Your task to perform on an android device: set default search engine in the chrome app Image 0: 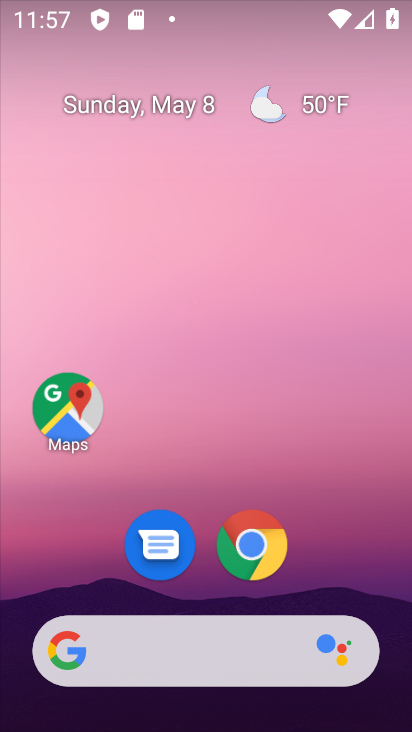
Step 0: click (239, 526)
Your task to perform on an android device: set default search engine in the chrome app Image 1: 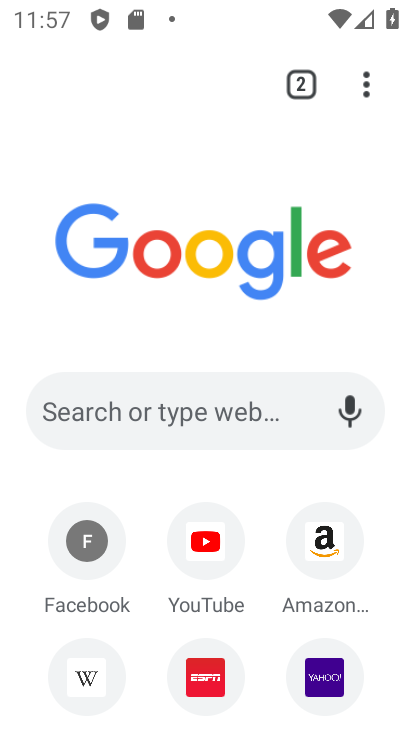
Step 1: click (368, 85)
Your task to perform on an android device: set default search engine in the chrome app Image 2: 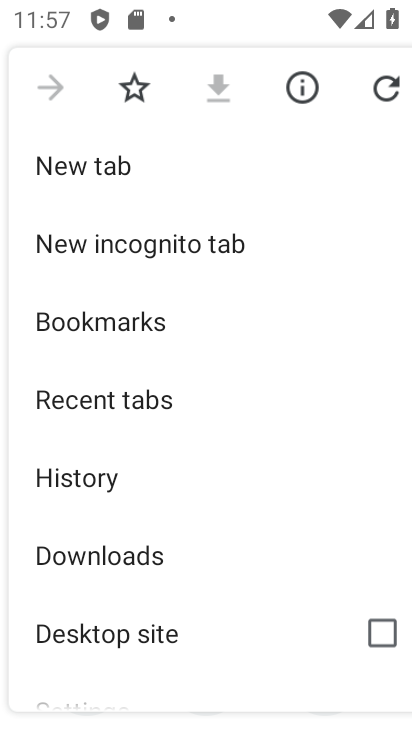
Step 2: drag from (198, 658) to (211, 383)
Your task to perform on an android device: set default search engine in the chrome app Image 3: 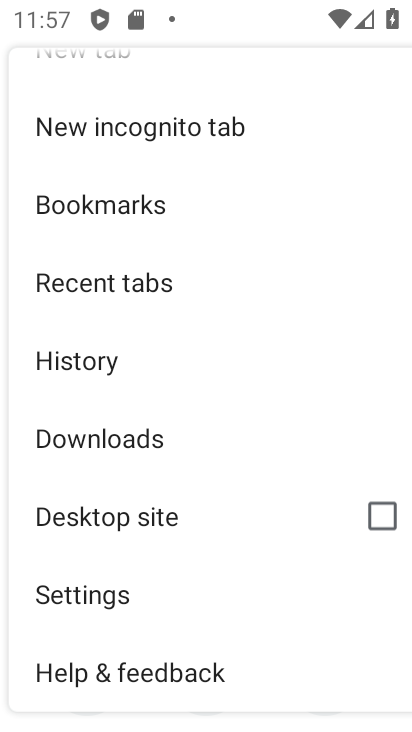
Step 3: click (140, 597)
Your task to perform on an android device: set default search engine in the chrome app Image 4: 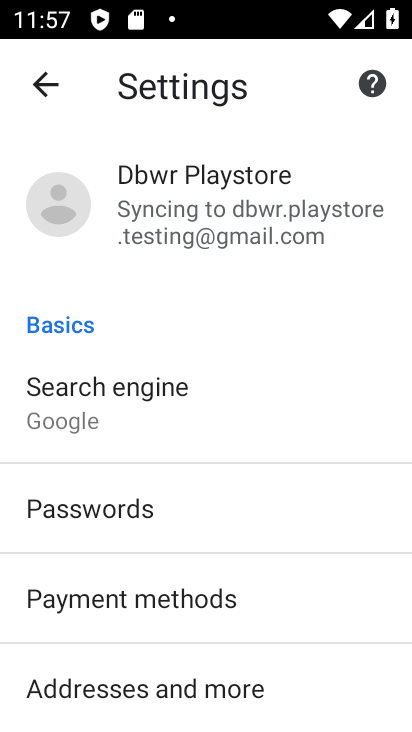
Step 4: click (118, 378)
Your task to perform on an android device: set default search engine in the chrome app Image 5: 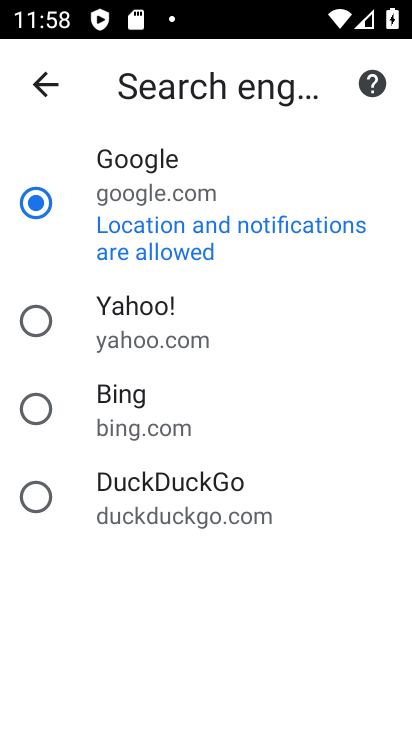
Step 5: click (70, 392)
Your task to perform on an android device: set default search engine in the chrome app Image 6: 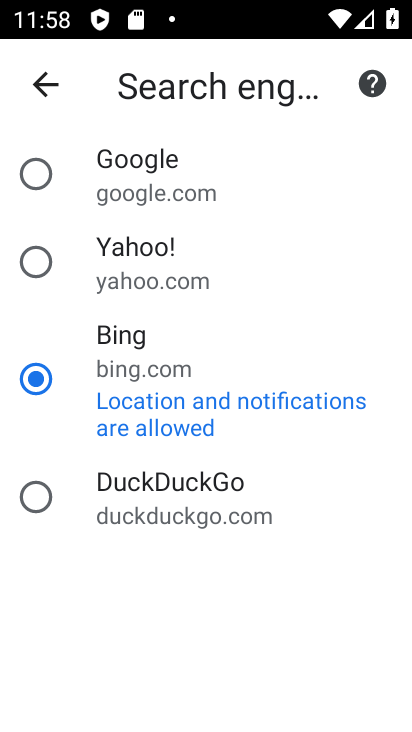
Step 6: task complete